Your task to perform on an android device: Search for "custom wallet" on Etsy. Image 0: 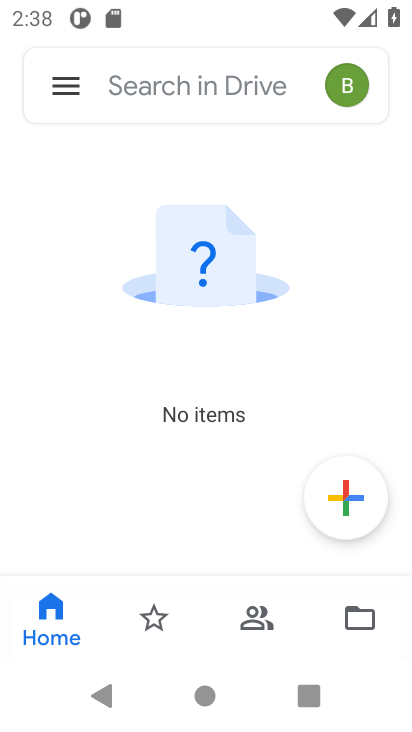
Step 0: press back button
Your task to perform on an android device: Search for "custom wallet" on Etsy. Image 1: 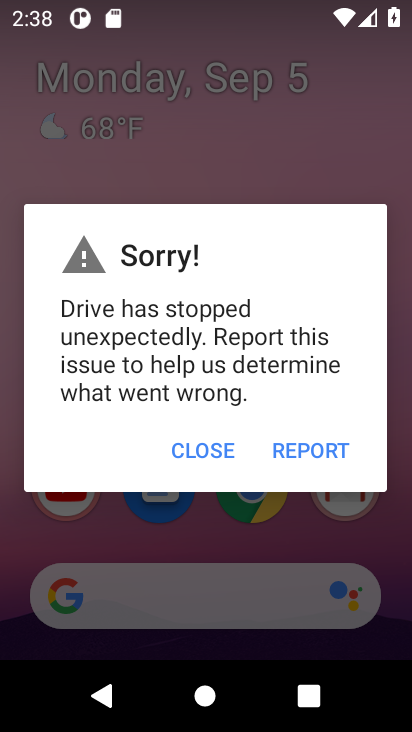
Step 1: press back button
Your task to perform on an android device: Search for "custom wallet" on Etsy. Image 2: 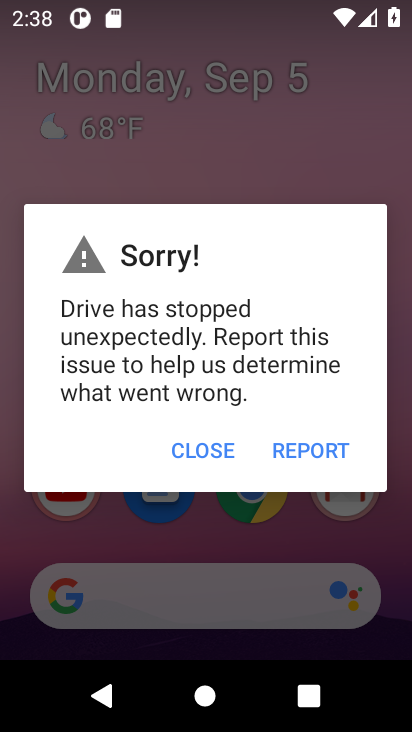
Step 2: click (350, 454)
Your task to perform on an android device: Search for "custom wallet" on Etsy. Image 3: 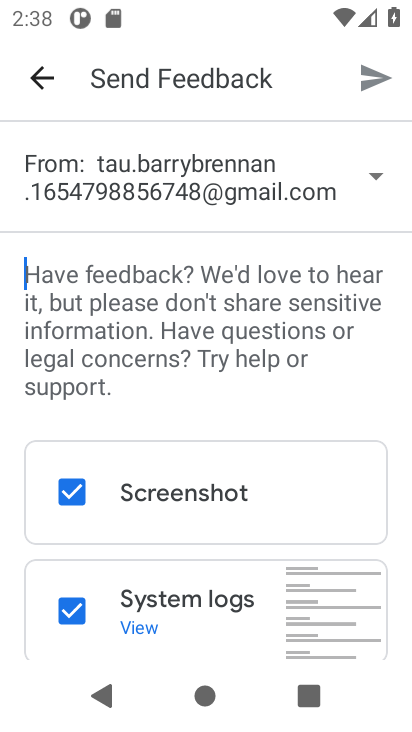
Step 3: press home button
Your task to perform on an android device: Search for "custom wallet" on Etsy. Image 4: 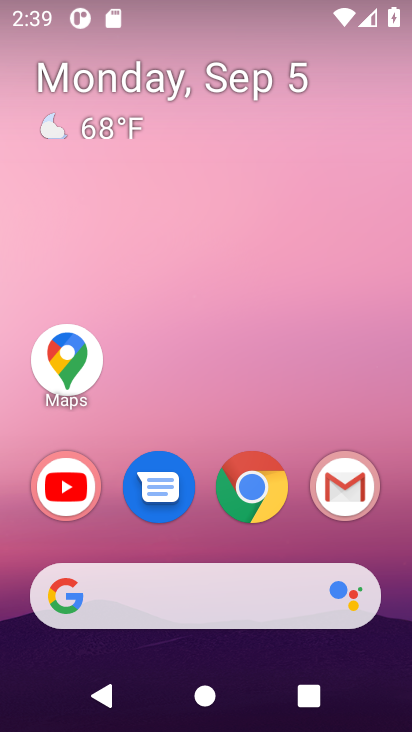
Step 4: click (256, 488)
Your task to perform on an android device: Search for "custom wallet" on Etsy. Image 5: 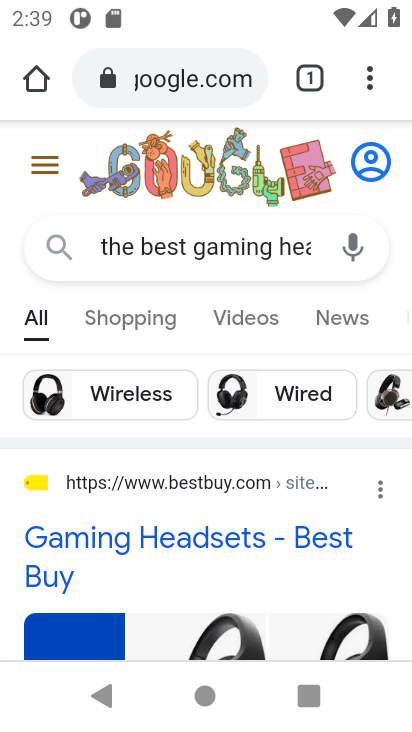
Step 5: click (150, 87)
Your task to perform on an android device: Search for "custom wallet" on Etsy. Image 6: 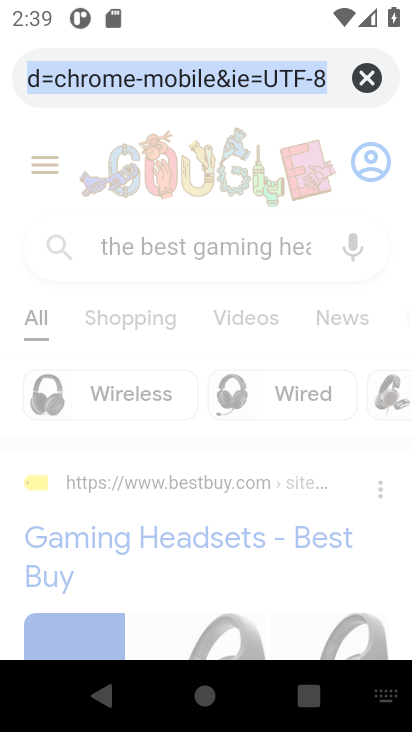
Step 6: click (374, 80)
Your task to perform on an android device: Search for "custom wallet" on Etsy. Image 7: 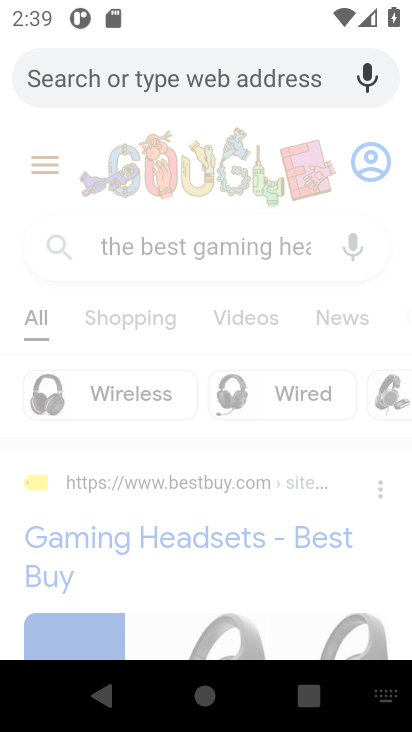
Step 7: type "custom wallet" on Etsy."
Your task to perform on an android device: Search for "custom wallet" on Etsy. Image 8: 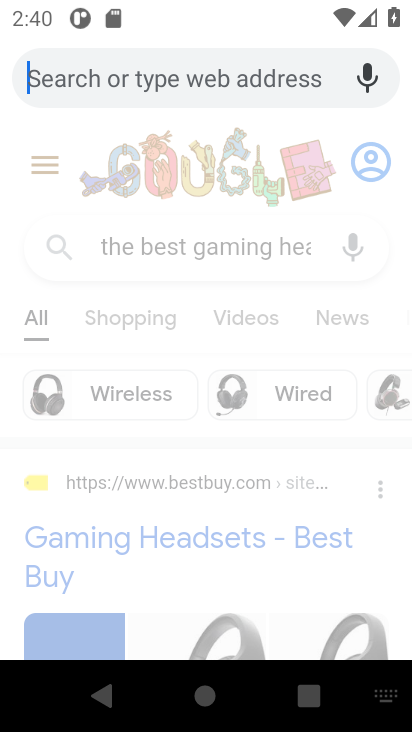
Step 8: type "custom wallet" on Etsy"
Your task to perform on an android device: Search for "custom wallet" on Etsy. Image 9: 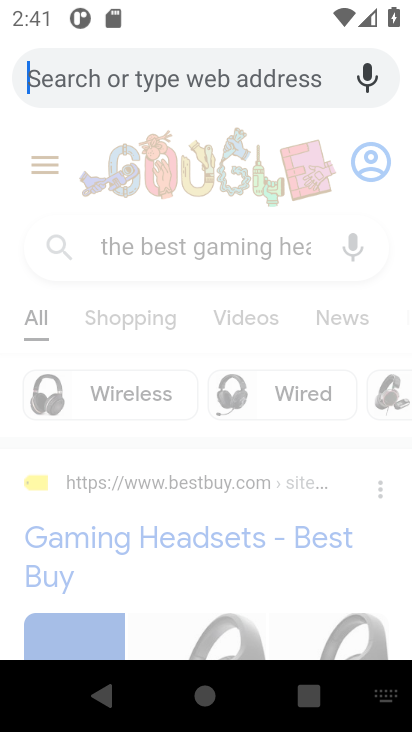
Step 9: task complete